Your task to perform on an android device: Open display settings Image 0: 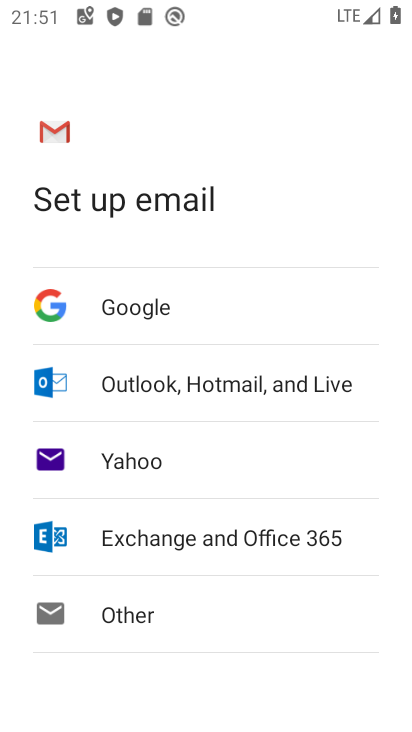
Step 0: press home button
Your task to perform on an android device: Open display settings Image 1: 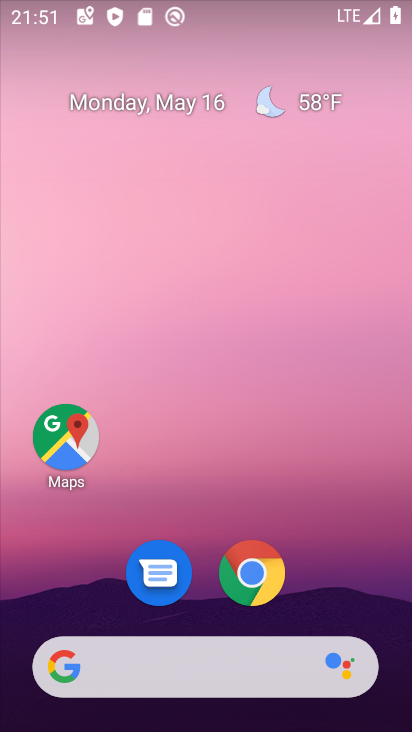
Step 1: drag from (209, 721) to (207, 152)
Your task to perform on an android device: Open display settings Image 2: 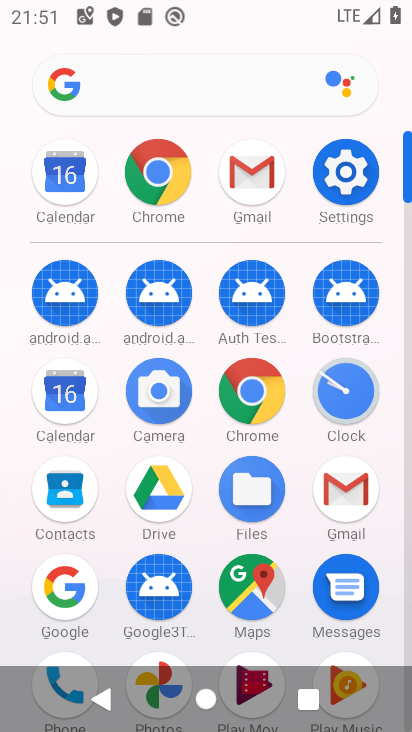
Step 2: click (345, 174)
Your task to perform on an android device: Open display settings Image 3: 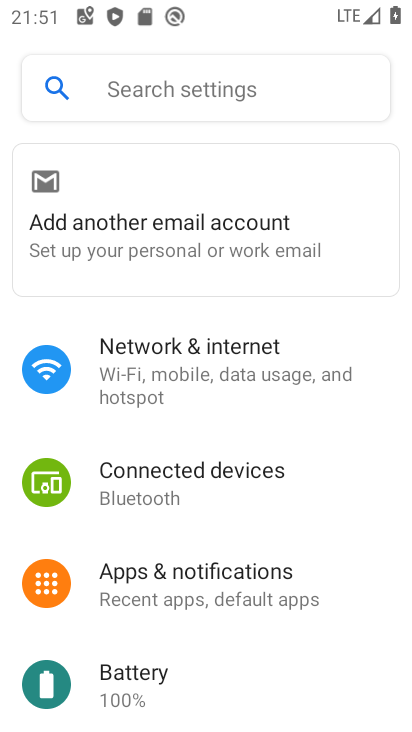
Step 3: drag from (205, 653) to (205, 287)
Your task to perform on an android device: Open display settings Image 4: 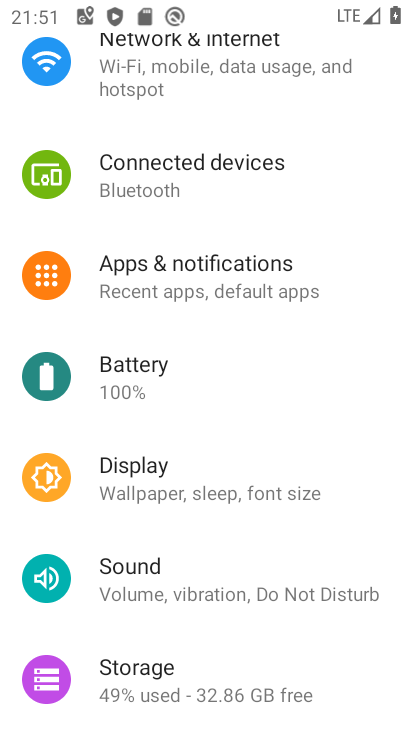
Step 4: drag from (157, 657) to (166, 237)
Your task to perform on an android device: Open display settings Image 5: 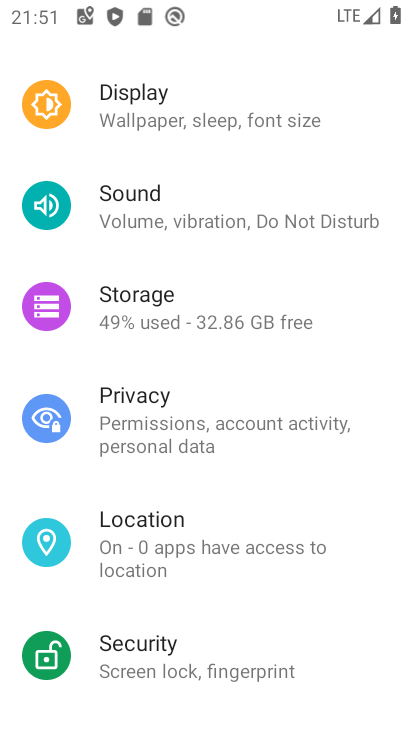
Step 5: click (138, 118)
Your task to perform on an android device: Open display settings Image 6: 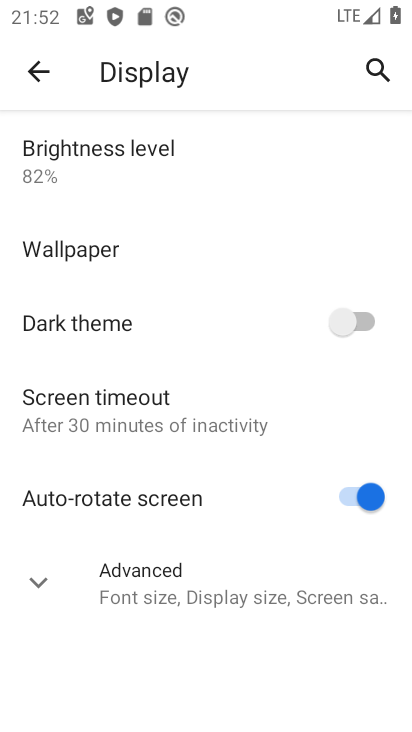
Step 6: task complete